Your task to perform on an android device: turn on wifi Image 0: 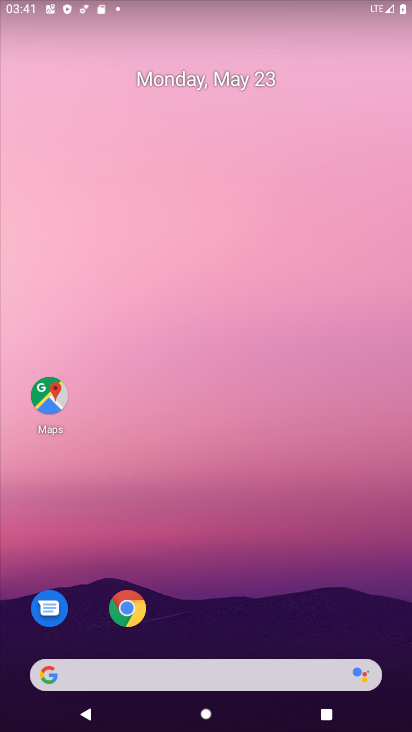
Step 0: drag from (264, 624) to (191, 60)
Your task to perform on an android device: turn on wifi Image 1: 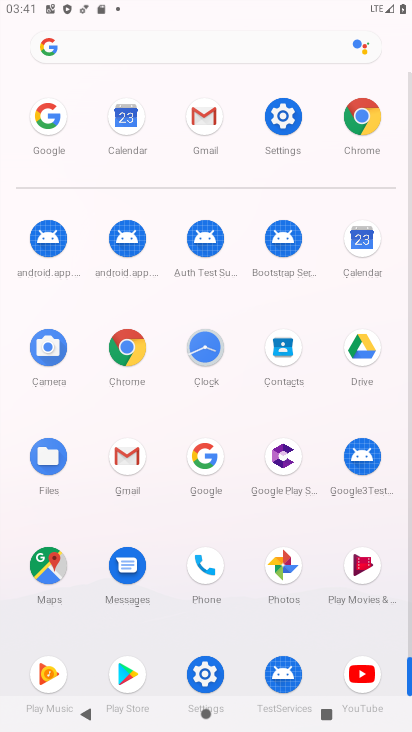
Step 1: click (283, 116)
Your task to perform on an android device: turn on wifi Image 2: 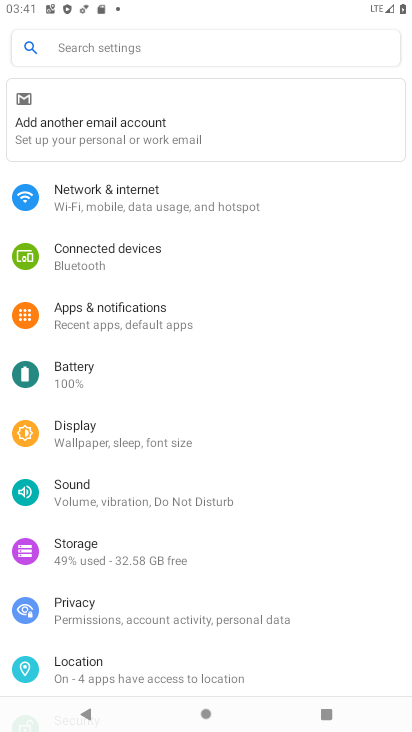
Step 2: click (150, 210)
Your task to perform on an android device: turn on wifi Image 3: 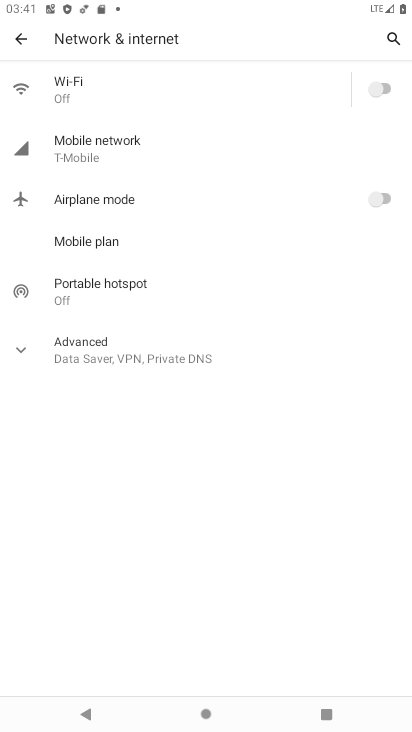
Step 3: click (81, 92)
Your task to perform on an android device: turn on wifi Image 4: 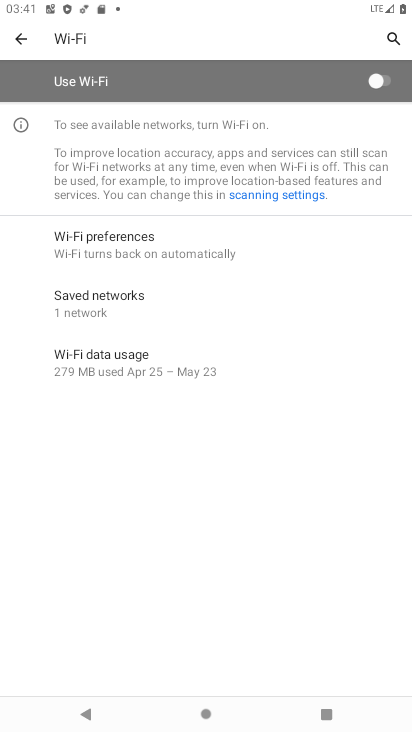
Step 4: click (385, 81)
Your task to perform on an android device: turn on wifi Image 5: 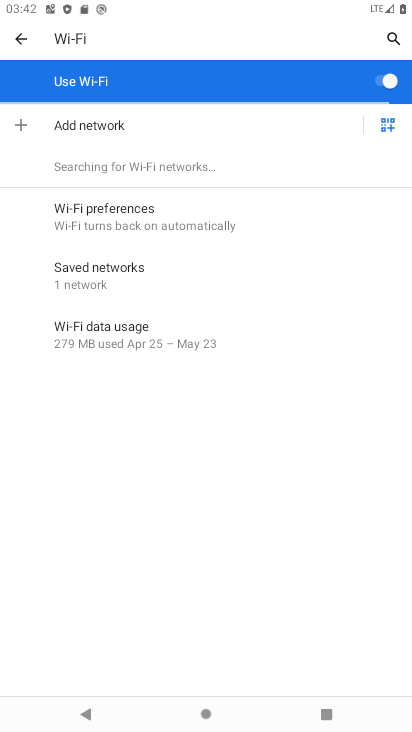
Step 5: task complete